Your task to perform on an android device: Clear the shopping cart on amazon. Add "razer huntsman" to the cart on amazon, then select checkout. Image 0: 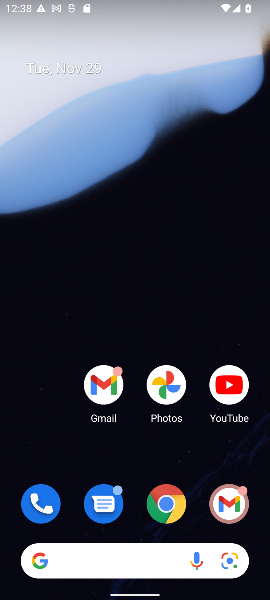
Step 0: click (169, 505)
Your task to perform on an android device: Clear the shopping cart on amazon. Add "razer huntsman" to the cart on amazon, then select checkout. Image 1: 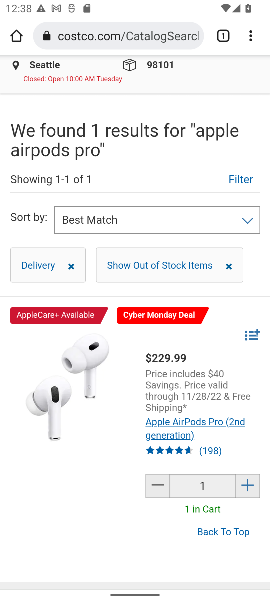
Step 1: click (115, 35)
Your task to perform on an android device: Clear the shopping cart on amazon. Add "razer huntsman" to the cart on amazon, then select checkout. Image 2: 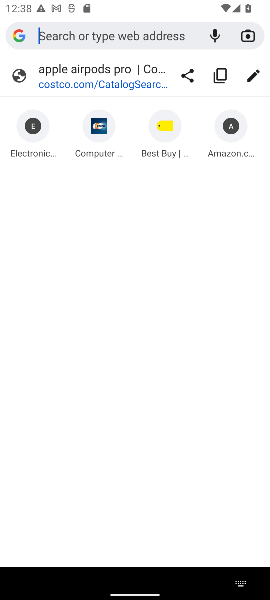
Step 2: click (230, 145)
Your task to perform on an android device: Clear the shopping cart on amazon. Add "razer huntsman" to the cart on amazon, then select checkout. Image 3: 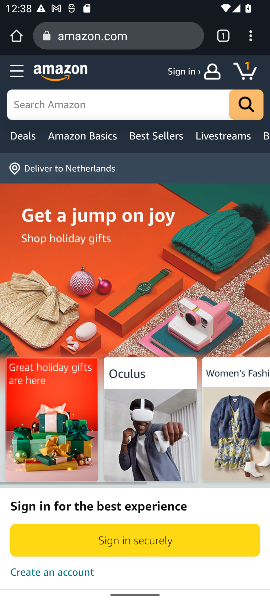
Step 3: click (245, 75)
Your task to perform on an android device: Clear the shopping cart on amazon. Add "razer huntsman" to the cart on amazon, then select checkout. Image 4: 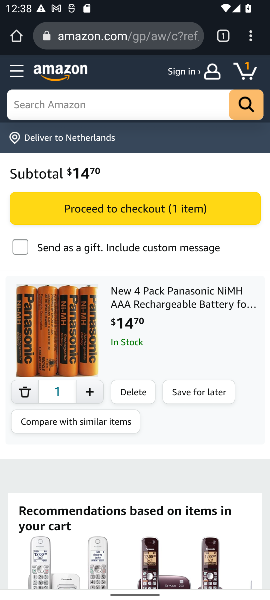
Step 4: click (133, 395)
Your task to perform on an android device: Clear the shopping cart on amazon. Add "razer huntsman" to the cart on amazon, then select checkout. Image 5: 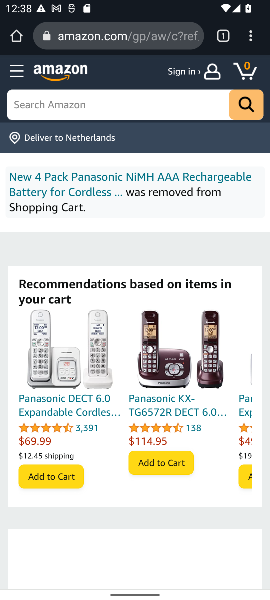
Step 5: click (37, 100)
Your task to perform on an android device: Clear the shopping cart on amazon. Add "razer huntsman" to the cart on amazon, then select checkout. Image 6: 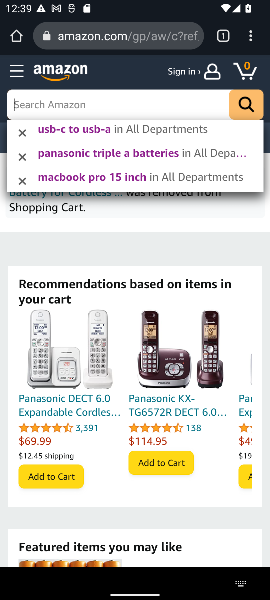
Step 6: type "razer huntsman"
Your task to perform on an android device: Clear the shopping cart on amazon. Add "razer huntsman" to the cart on amazon, then select checkout. Image 7: 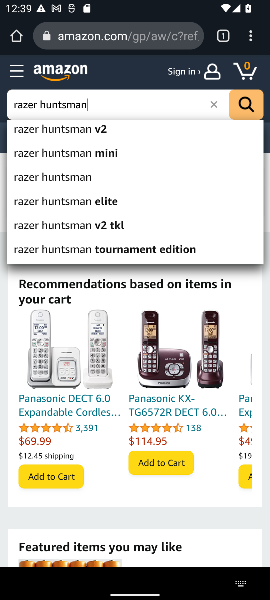
Step 7: click (38, 180)
Your task to perform on an android device: Clear the shopping cart on amazon. Add "razer huntsman" to the cart on amazon, then select checkout. Image 8: 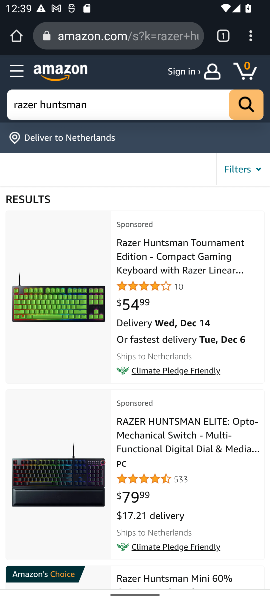
Step 8: click (199, 266)
Your task to perform on an android device: Clear the shopping cart on amazon. Add "razer huntsman" to the cart on amazon, then select checkout. Image 9: 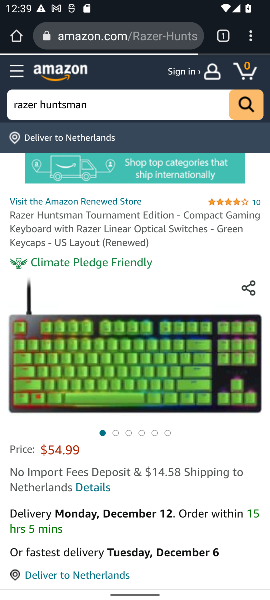
Step 9: drag from (137, 512) to (142, 249)
Your task to perform on an android device: Clear the shopping cart on amazon. Add "razer huntsman" to the cart on amazon, then select checkout. Image 10: 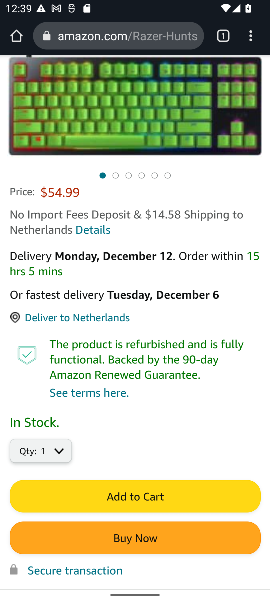
Step 10: click (120, 498)
Your task to perform on an android device: Clear the shopping cart on amazon. Add "razer huntsman" to the cart on amazon, then select checkout. Image 11: 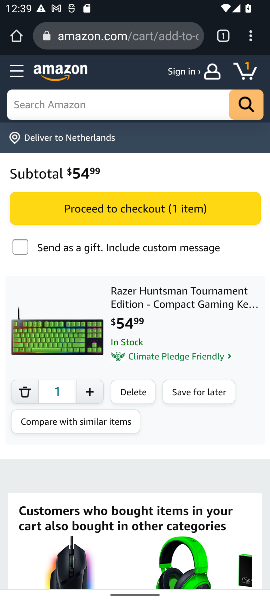
Step 11: click (104, 208)
Your task to perform on an android device: Clear the shopping cart on amazon. Add "razer huntsman" to the cart on amazon, then select checkout. Image 12: 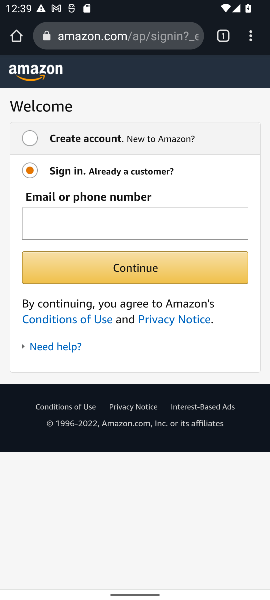
Step 12: task complete